Your task to perform on an android device: Open ESPN.com Image 0: 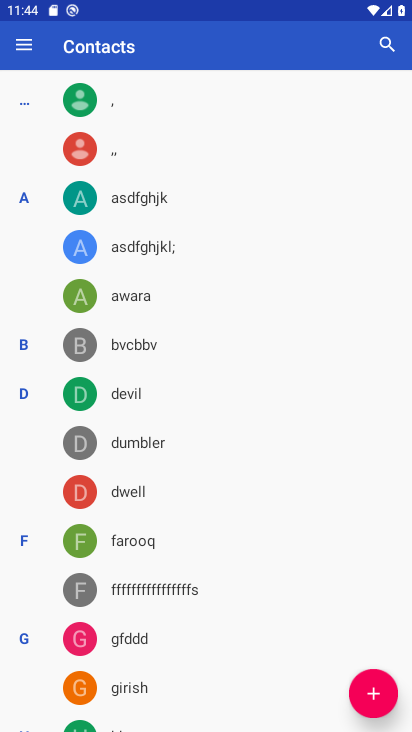
Step 0: press home button
Your task to perform on an android device: Open ESPN.com Image 1: 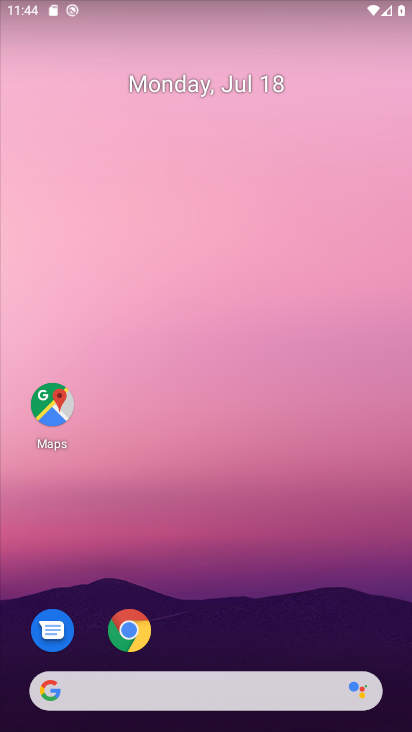
Step 1: click (137, 631)
Your task to perform on an android device: Open ESPN.com Image 2: 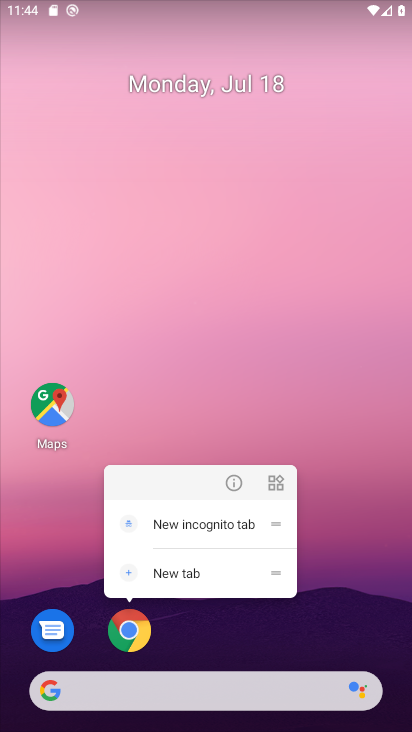
Step 2: click (132, 630)
Your task to perform on an android device: Open ESPN.com Image 3: 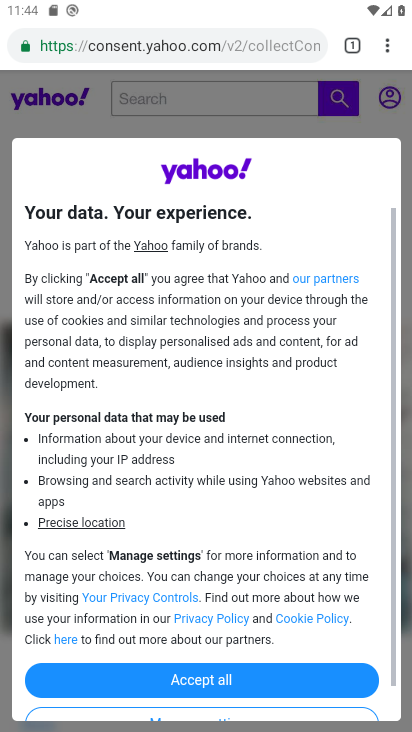
Step 3: click (194, 47)
Your task to perform on an android device: Open ESPN.com Image 4: 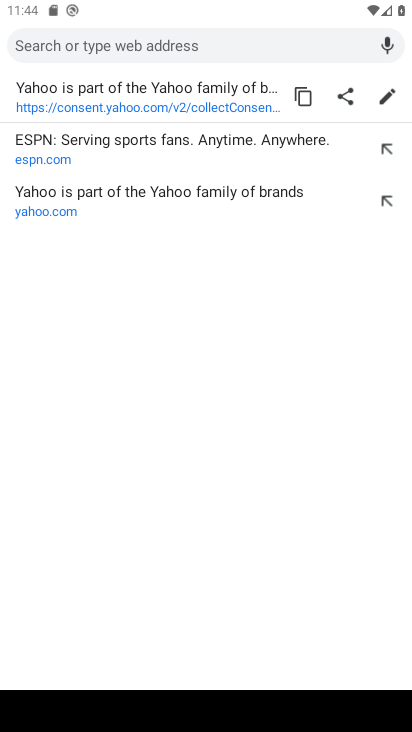
Step 4: type "ESPN.com"
Your task to perform on an android device: Open ESPN.com Image 5: 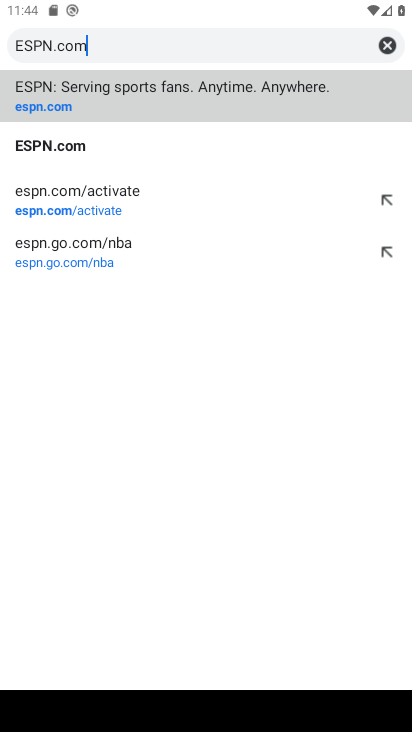
Step 5: click (85, 150)
Your task to perform on an android device: Open ESPN.com Image 6: 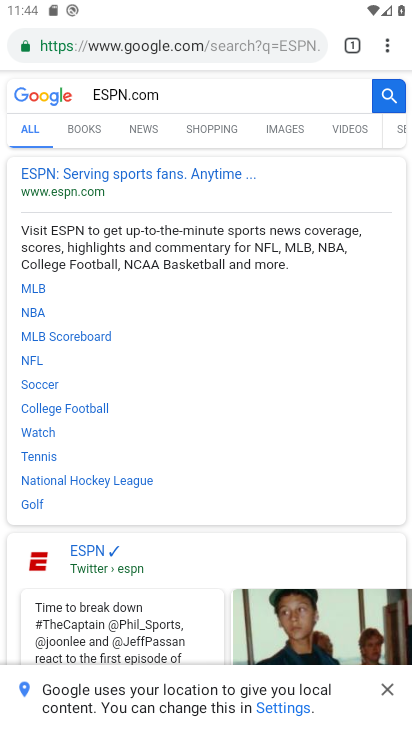
Step 6: task complete